Your task to perform on an android device: Open the phone app and click the voicemail tab. Image 0: 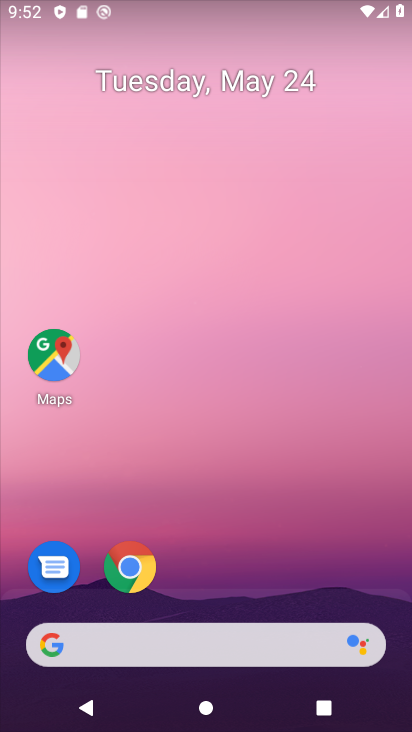
Step 0: drag from (408, 720) to (388, 294)
Your task to perform on an android device: Open the phone app and click the voicemail tab. Image 1: 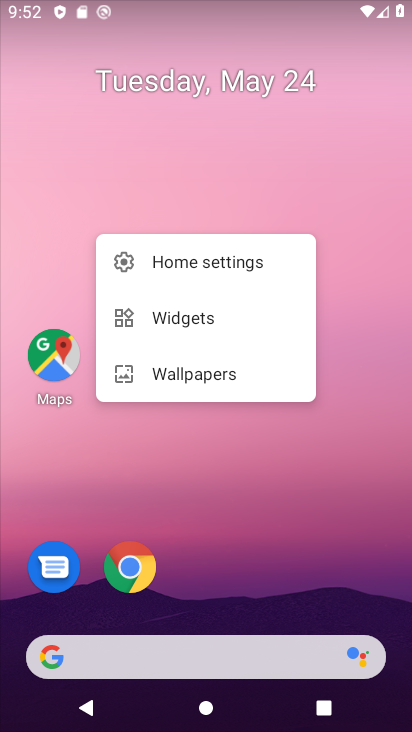
Step 1: drag from (398, 706) to (356, 170)
Your task to perform on an android device: Open the phone app and click the voicemail tab. Image 2: 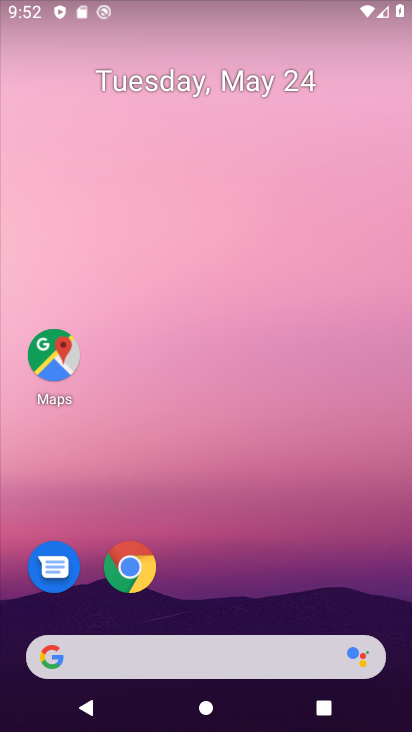
Step 2: drag from (403, 713) to (365, 163)
Your task to perform on an android device: Open the phone app and click the voicemail tab. Image 3: 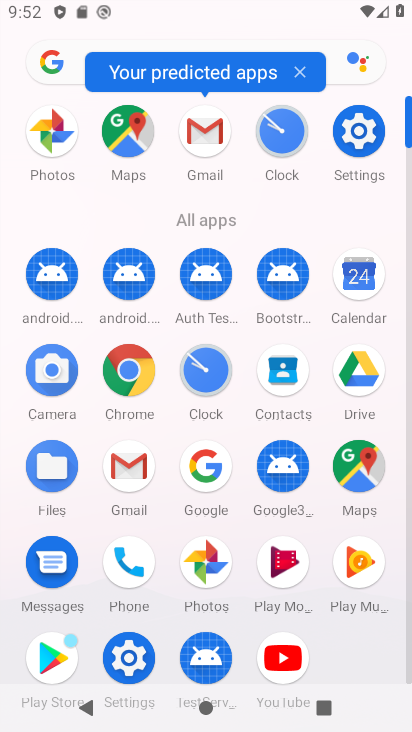
Step 3: click (127, 572)
Your task to perform on an android device: Open the phone app and click the voicemail tab. Image 4: 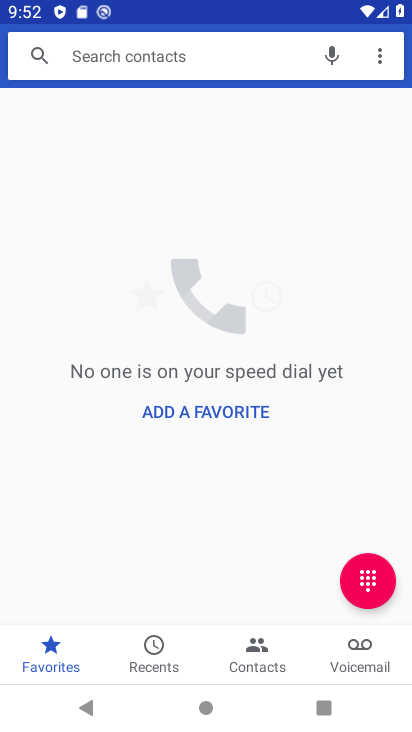
Step 4: click (356, 654)
Your task to perform on an android device: Open the phone app and click the voicemail tab. Image 5: 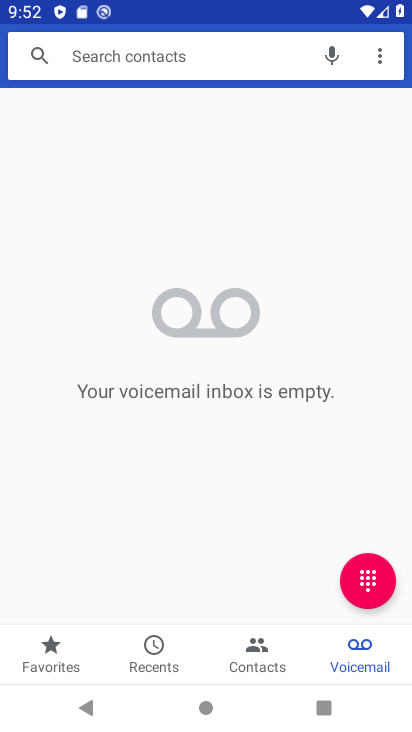
Step 5: task complete